Your task to perform on an android device: Open internet settings Image 0: 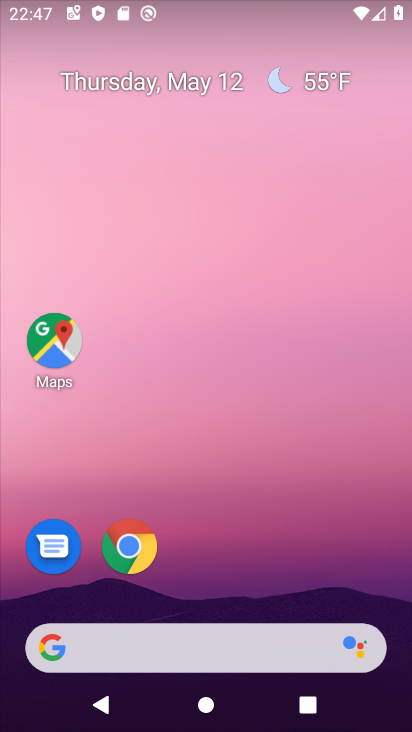
Step 0: drag from (264, 518) to (264, 116)
Your task to perform on an android device: Open internet settings Image 1: 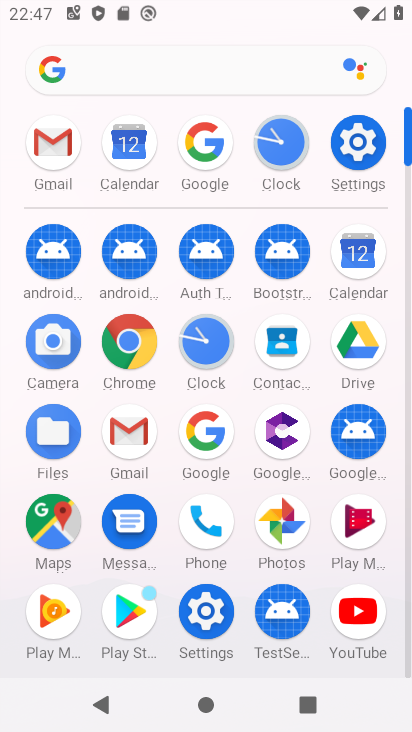
Step 1: click (190, 597)
Your task to perform on an android device: Open internet settings Image 2: 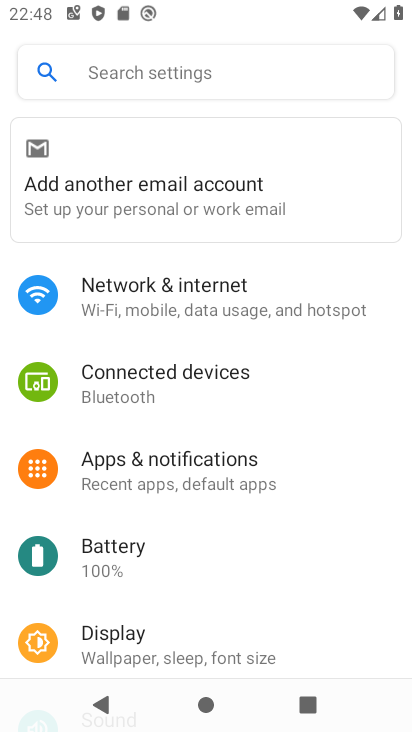
Step 2: click (247, 287)
Your task to perform on an android device: Open internet settings Image 3: 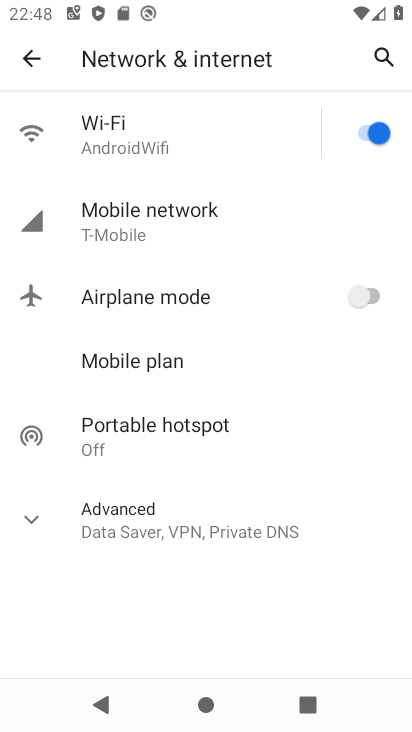
Step 3: task complete